Your task to perform on an android device: turn off location history Image 0: 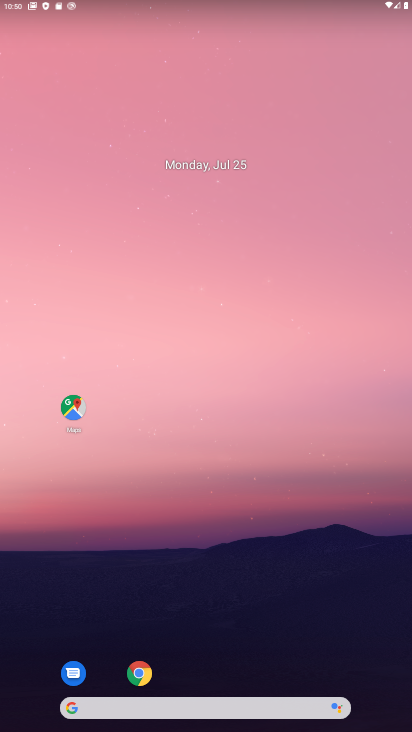
Step 0: drag from (279, 622) to (288, 43)
Your task to perform on an android device: turn off location history Image 1: 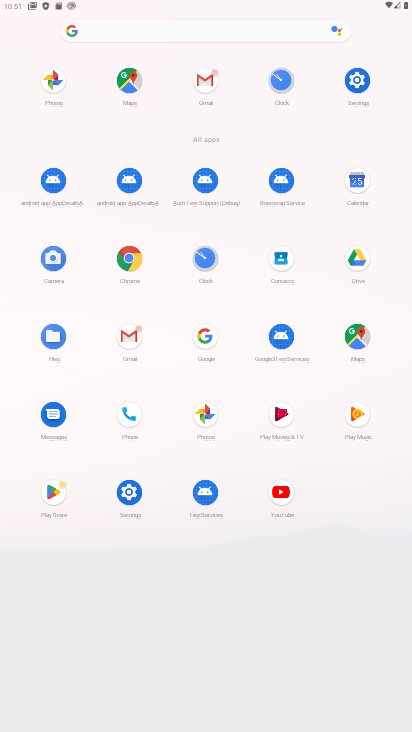
Step 1: click (129, 486)
Your task to perform on an android device: turn off location history Image 2: 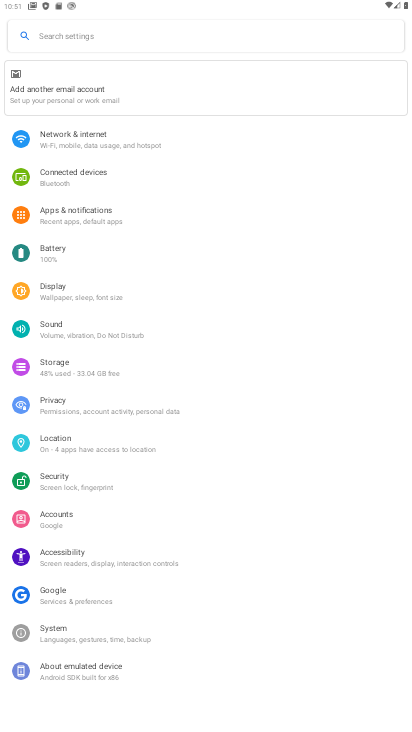
Step 2: click (56, 452)
Your task to perform on an android device: turn off location history Image 3: 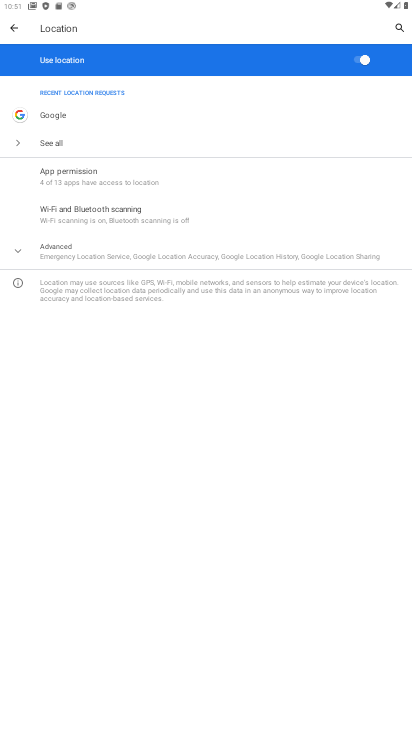
Step 3: click (372, 56)
Your task to perform on an android device: turn off location history Image 4: 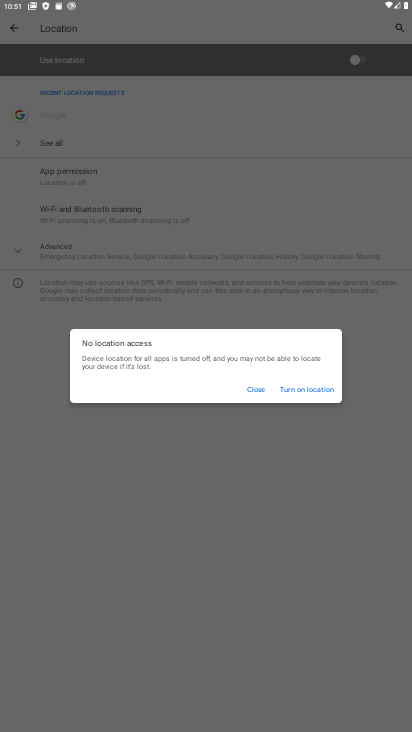
Step 4: task complete